Your task to perform on an android device: Open Youtube and go to "Your channel" Image 0: 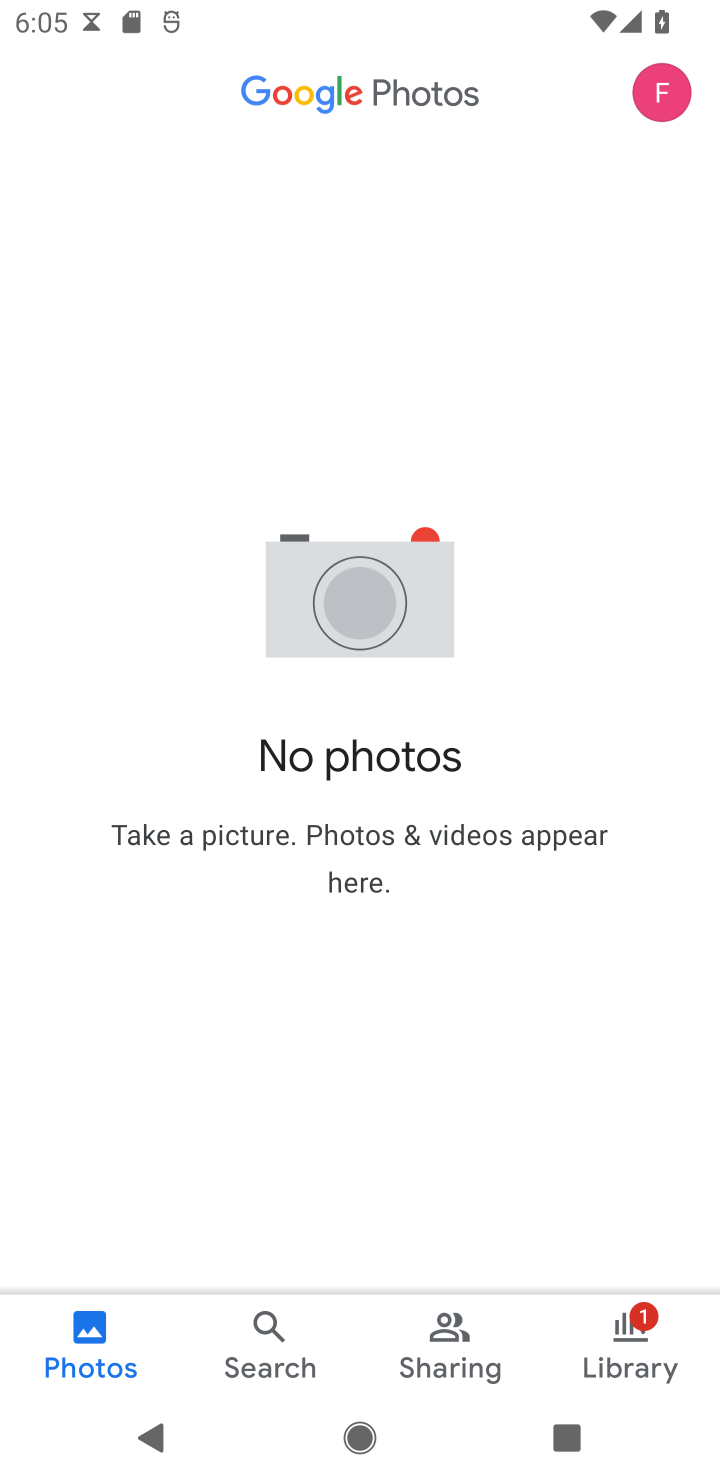
Step 0: press home button
Your task to perform on an android device: Open Youtube and go to "Your channel" Image 1: 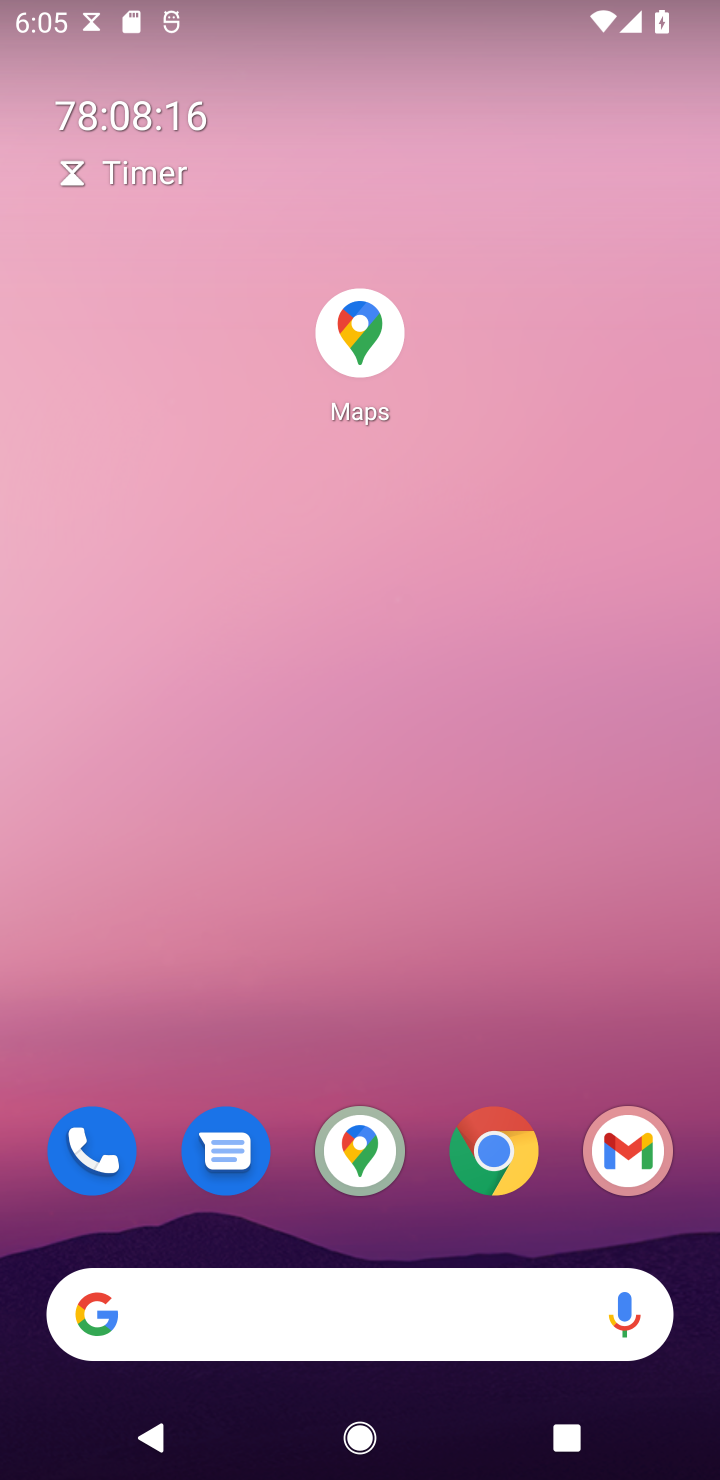
Step 1: drag from (381, 947) to (374, 209)
Your task to perform on an android device: Open Youtube and go to "Your channel" Image 2: 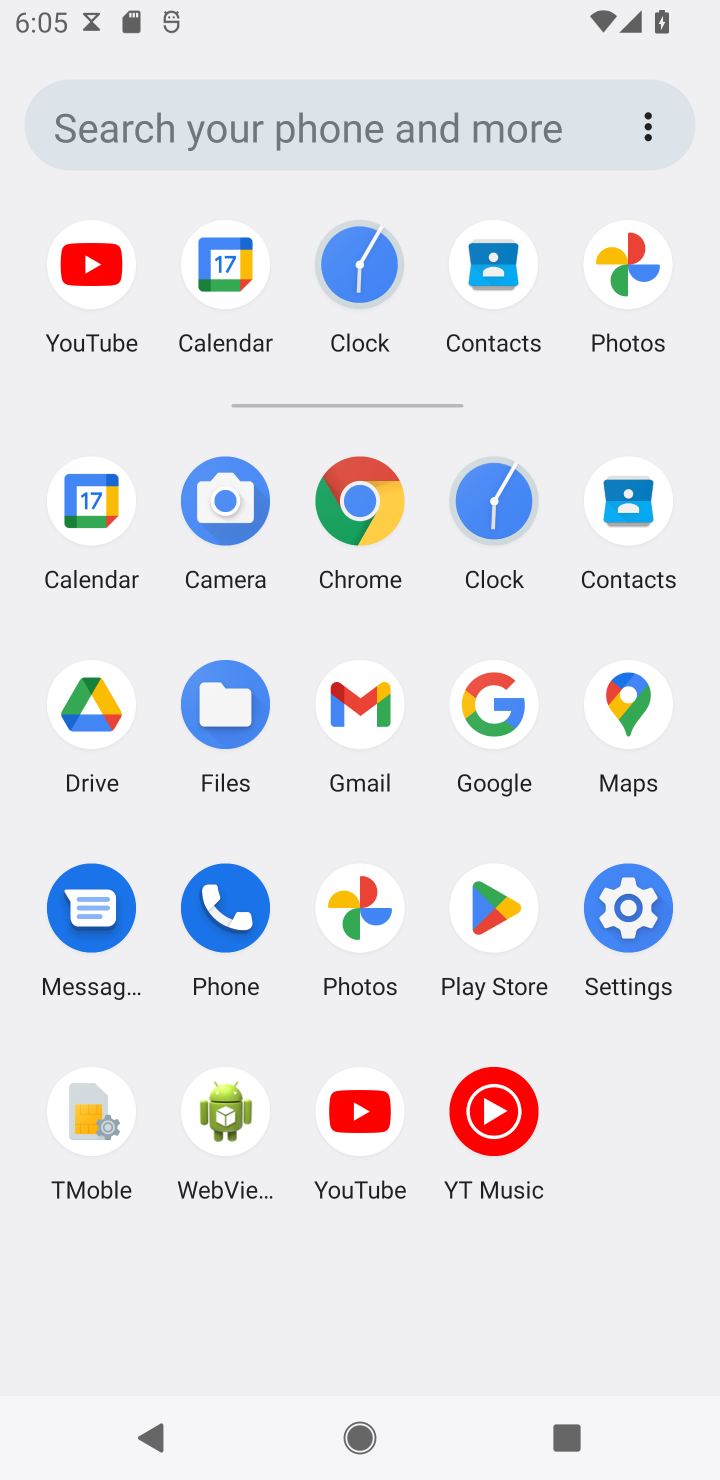
Step 2: click (358, 1106)
Your task to perform on an android device: Open Youtube and go to "Your channel" Image 3: 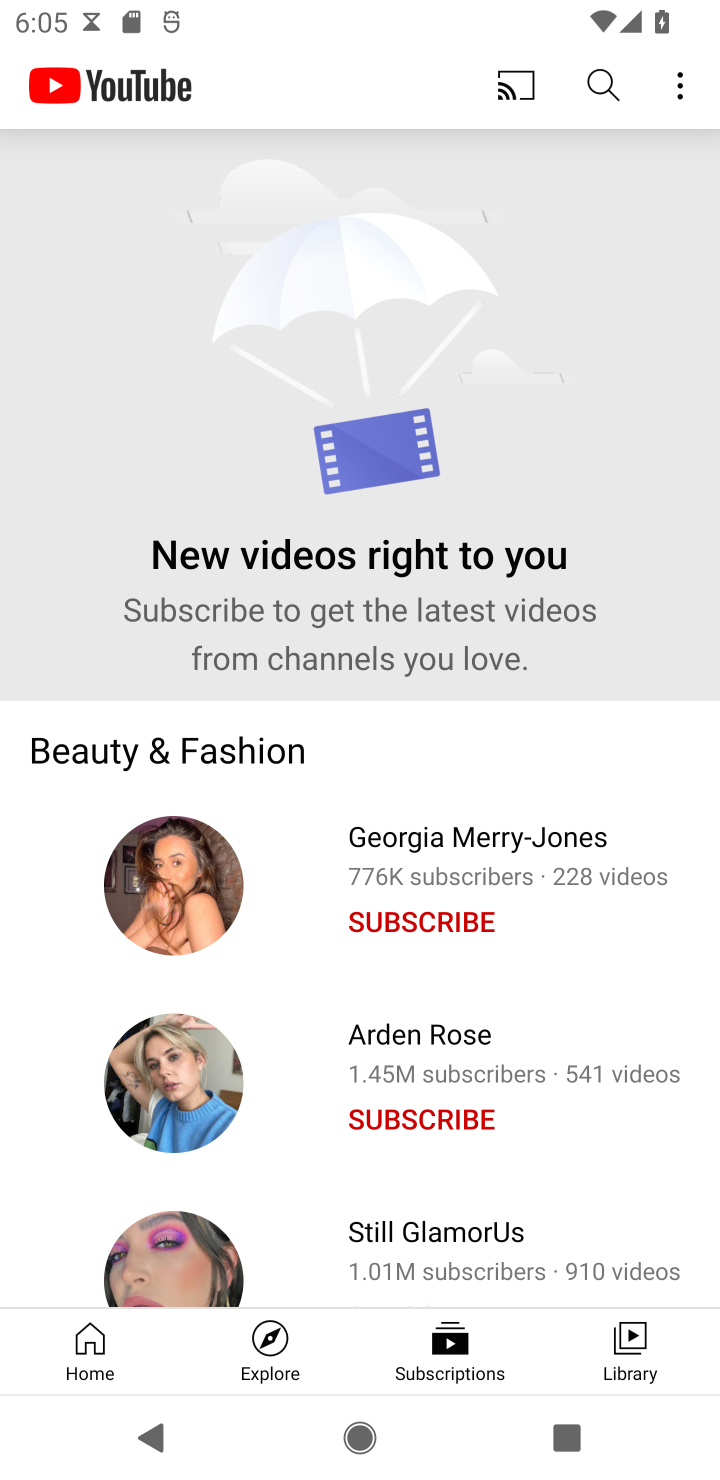
Step 3: click (111, 1335)
Your task to perform on an android device: Open Youtube and go to "Your channel" Image 4: 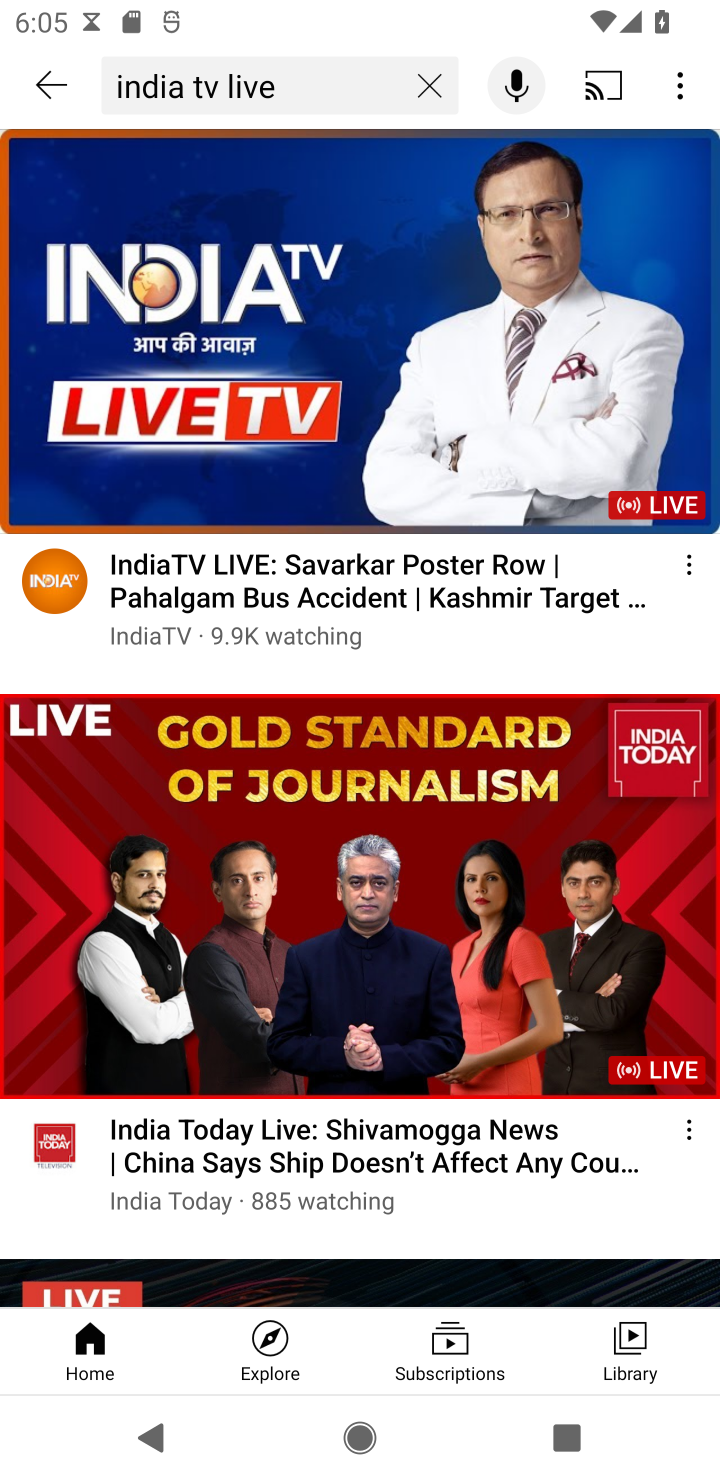
Step 4: click (601, 86)
Your task to perform on an android device: Open Youtube and go to "Your channel" Image 5: 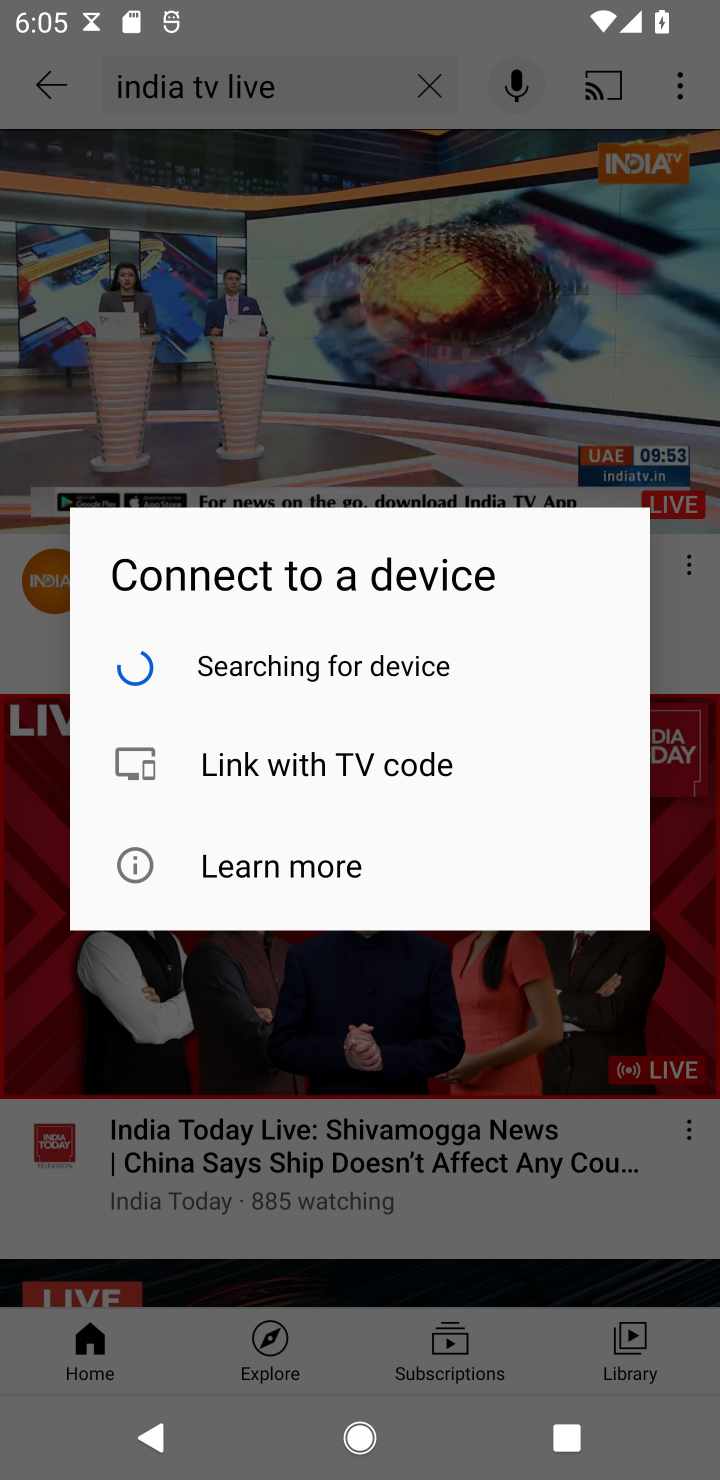
Step 5: type "delhi"
Your task to perform on an android device: Open Youtube and go to "Your channel" Image 6: 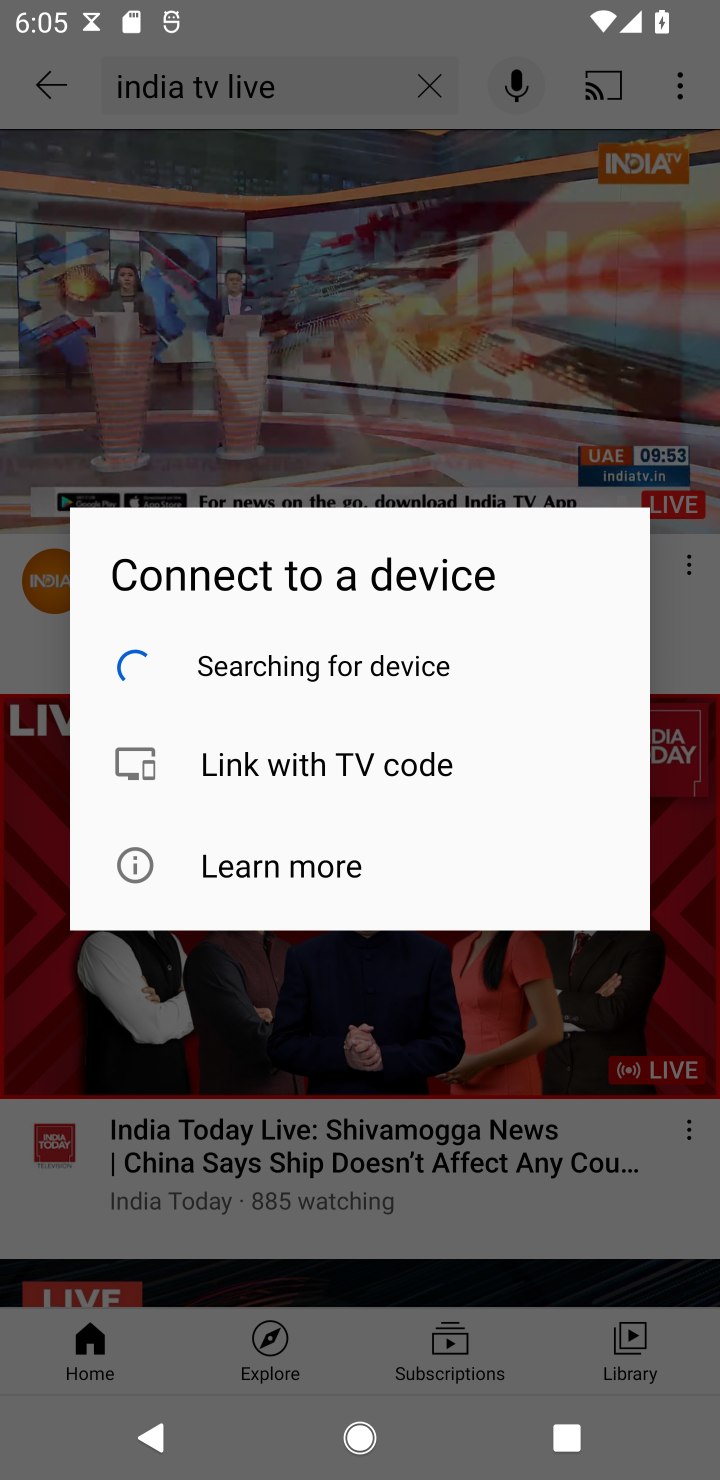
Step 6: click (412, 682)
Your task to perform on an android device: Open Youtube and go to "Your channel" Image 7: 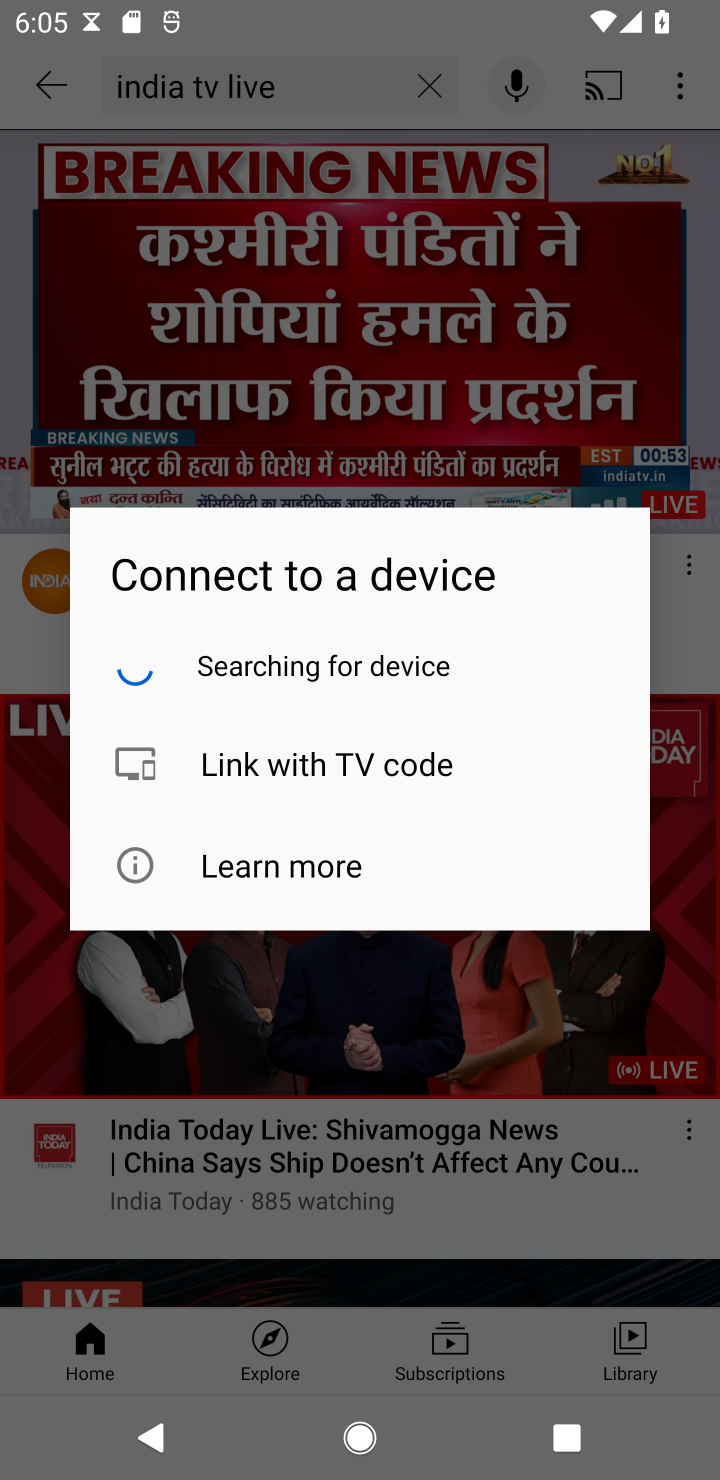
Step 7: click (435, 80)
Your task to perform on an android device: Open Youtube and go to "Your channel" Image 8: 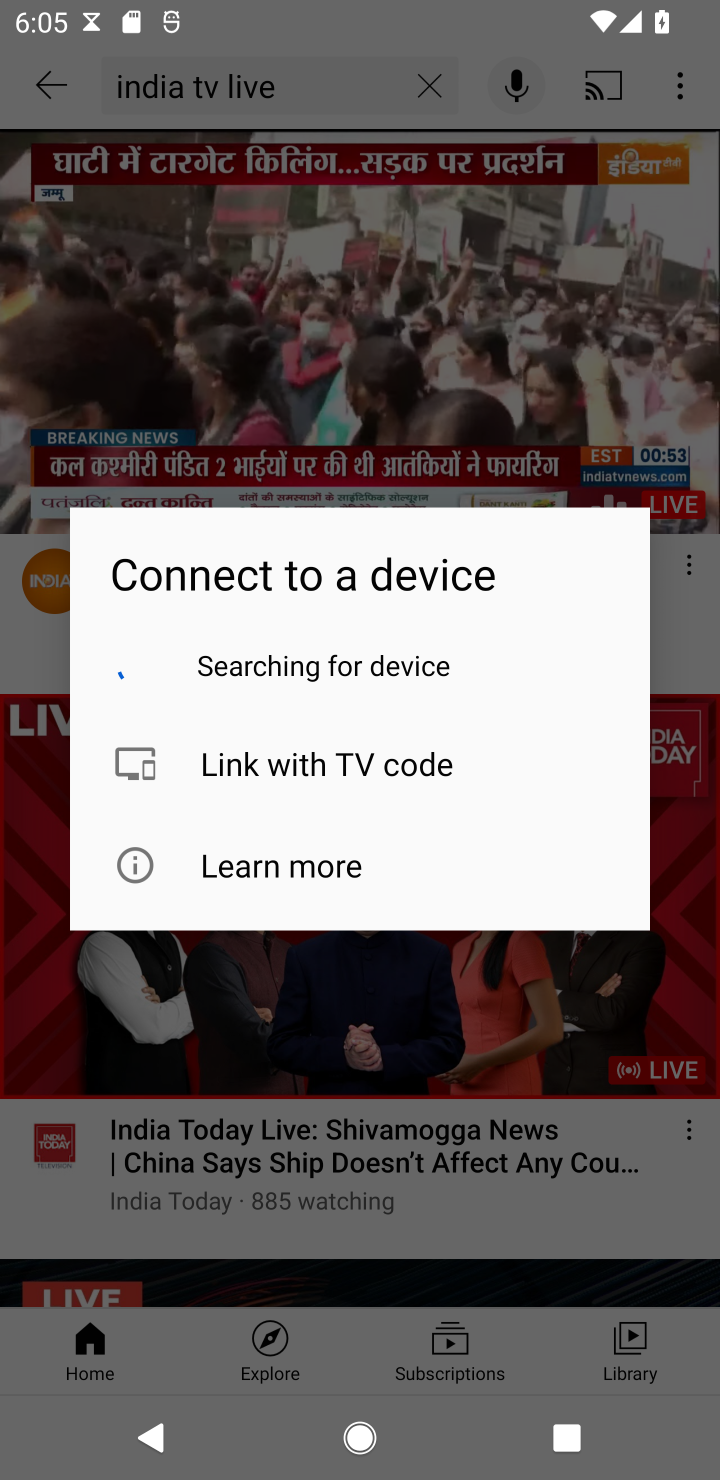
Step 8: click (553, 448)
Your task to perform on an android device: Open Youtube and go to "Your channel" Image 9: 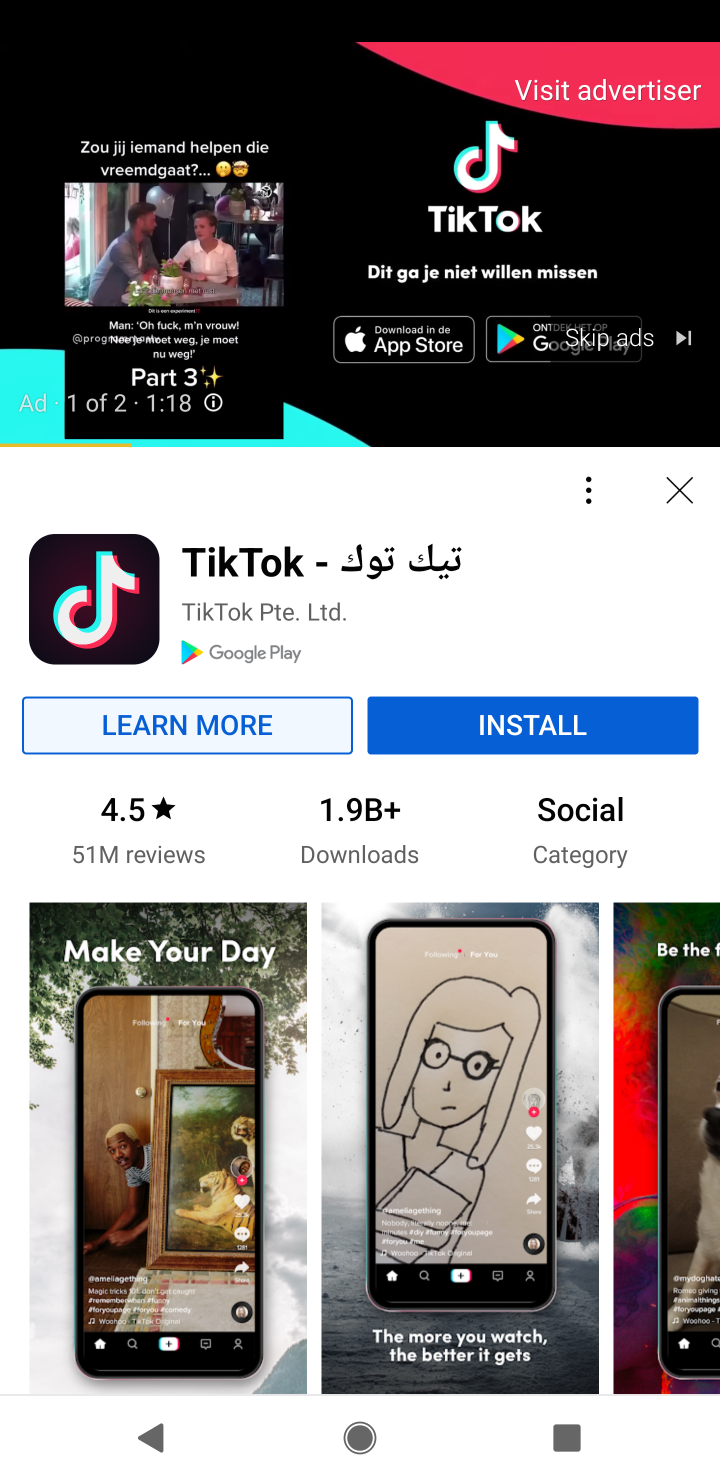
Step 9: click (694, 486)
Your task to perform on an android device: Open Youtube and go to "Your channel" Image 10: 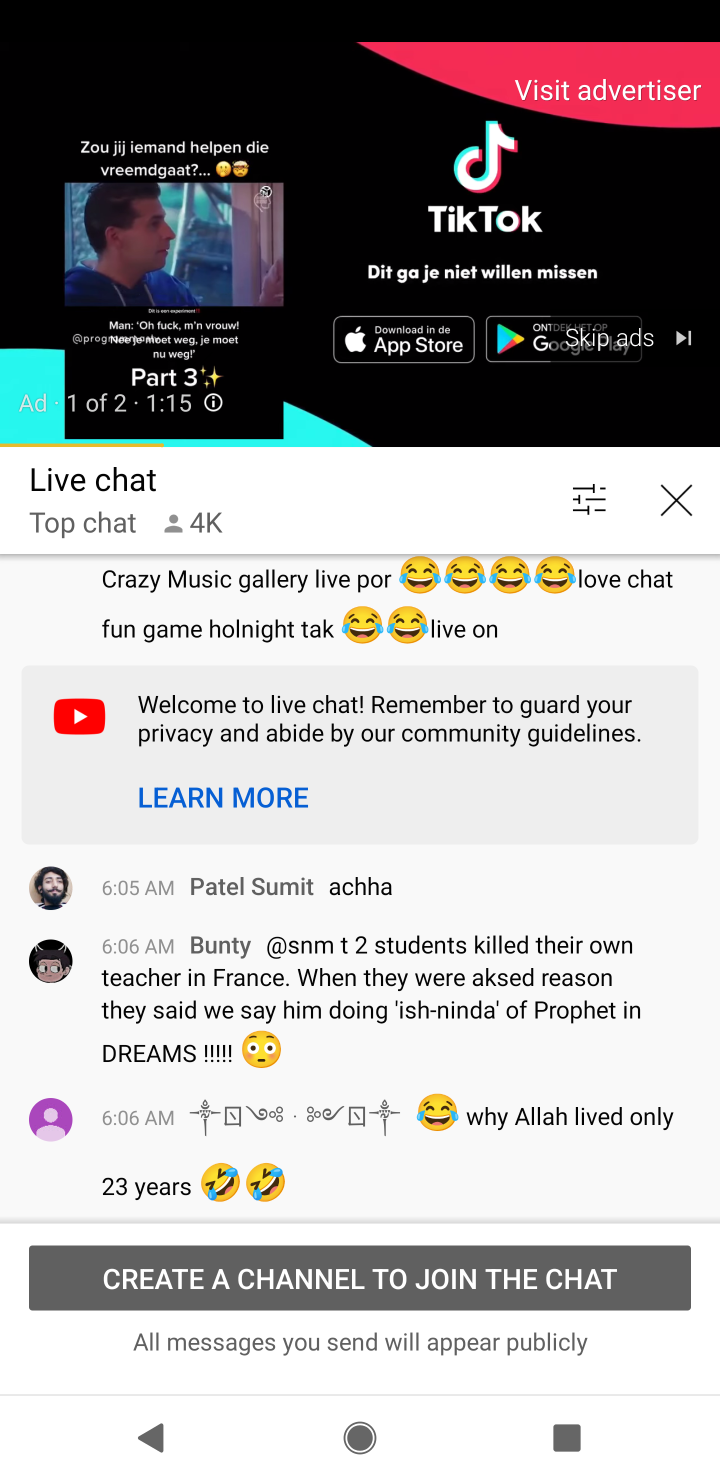
Step 10: click (683, 486)
Your task to perform on an android device: Open Youtube and go to "Your channel" Image 11: 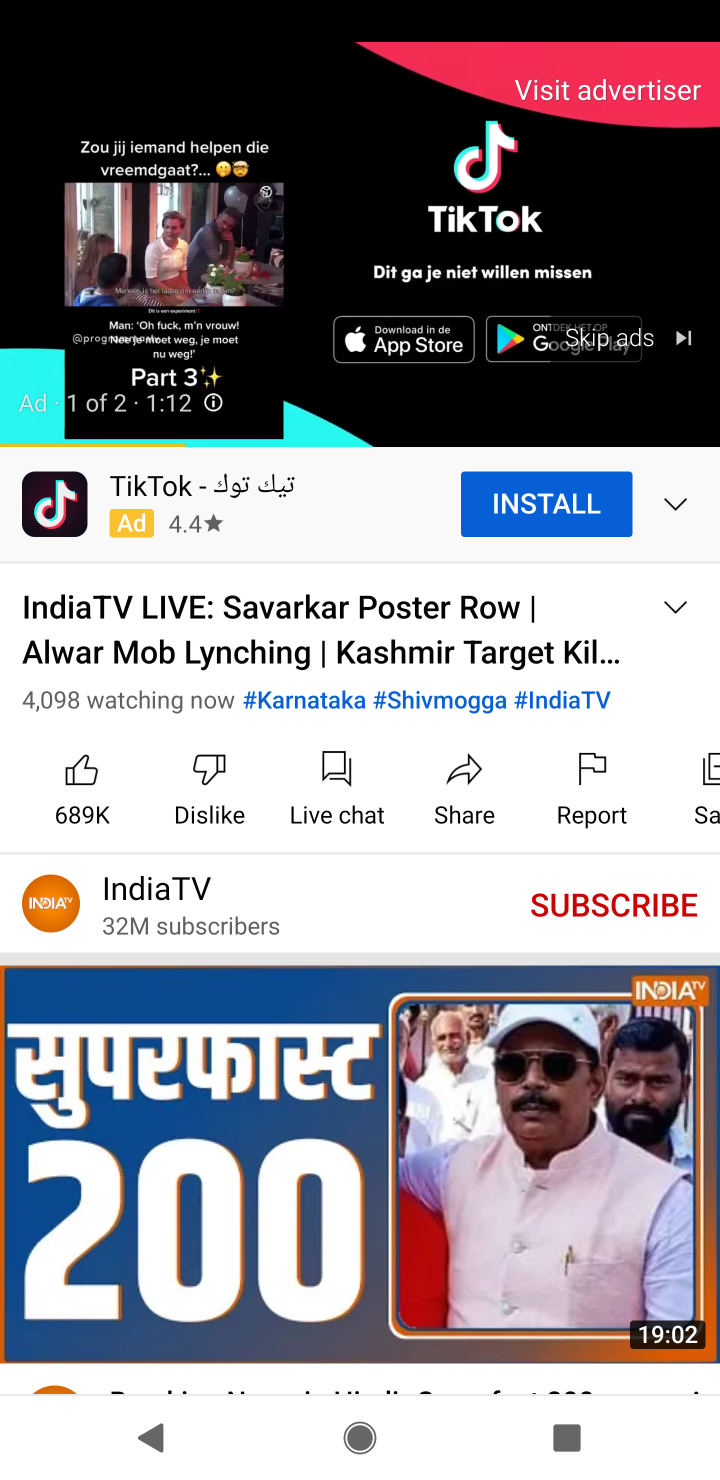
Step 11: press back button
Your task to perform on an android device: Open Youtube and go to "Your channel" Image 12: 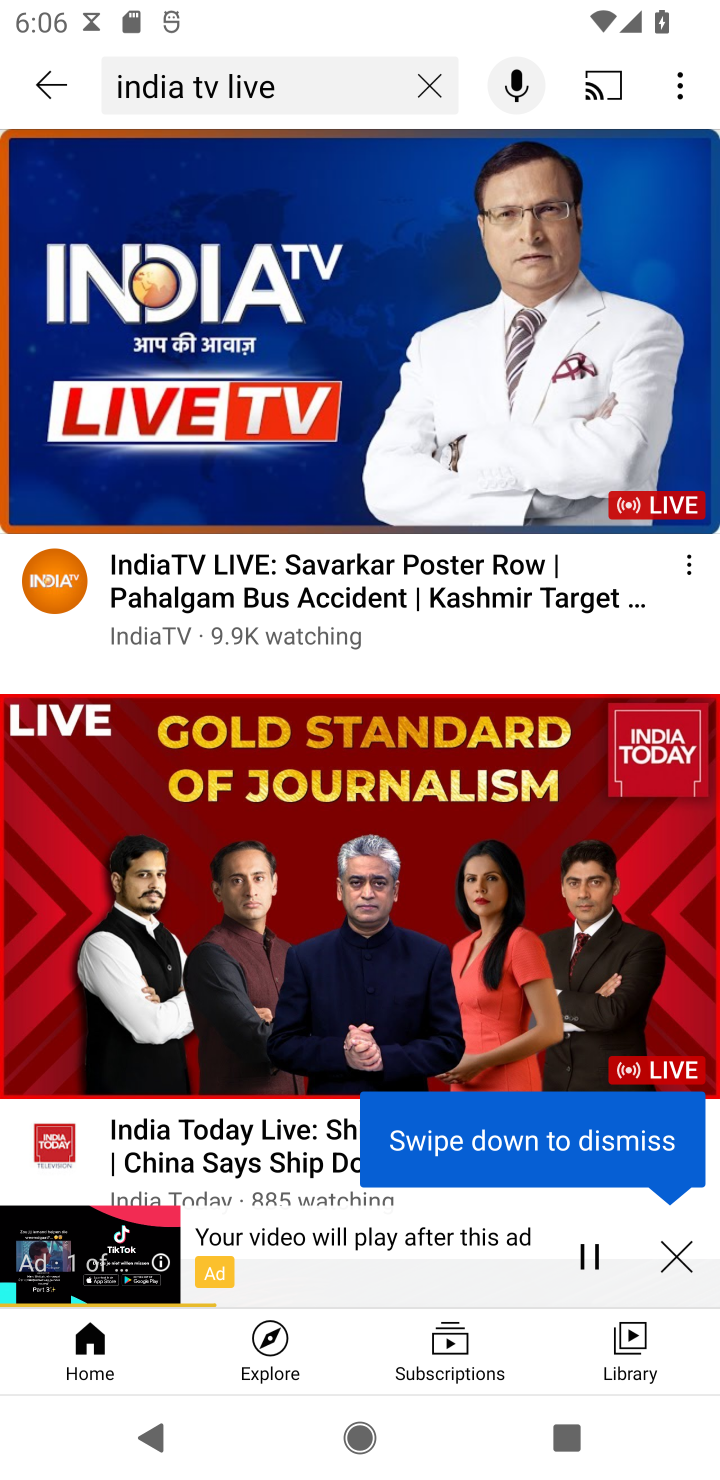
Step 12: click (416, 81)
Your task to perform on an android device: Open Youtube and go to "Your channel" Image 13: 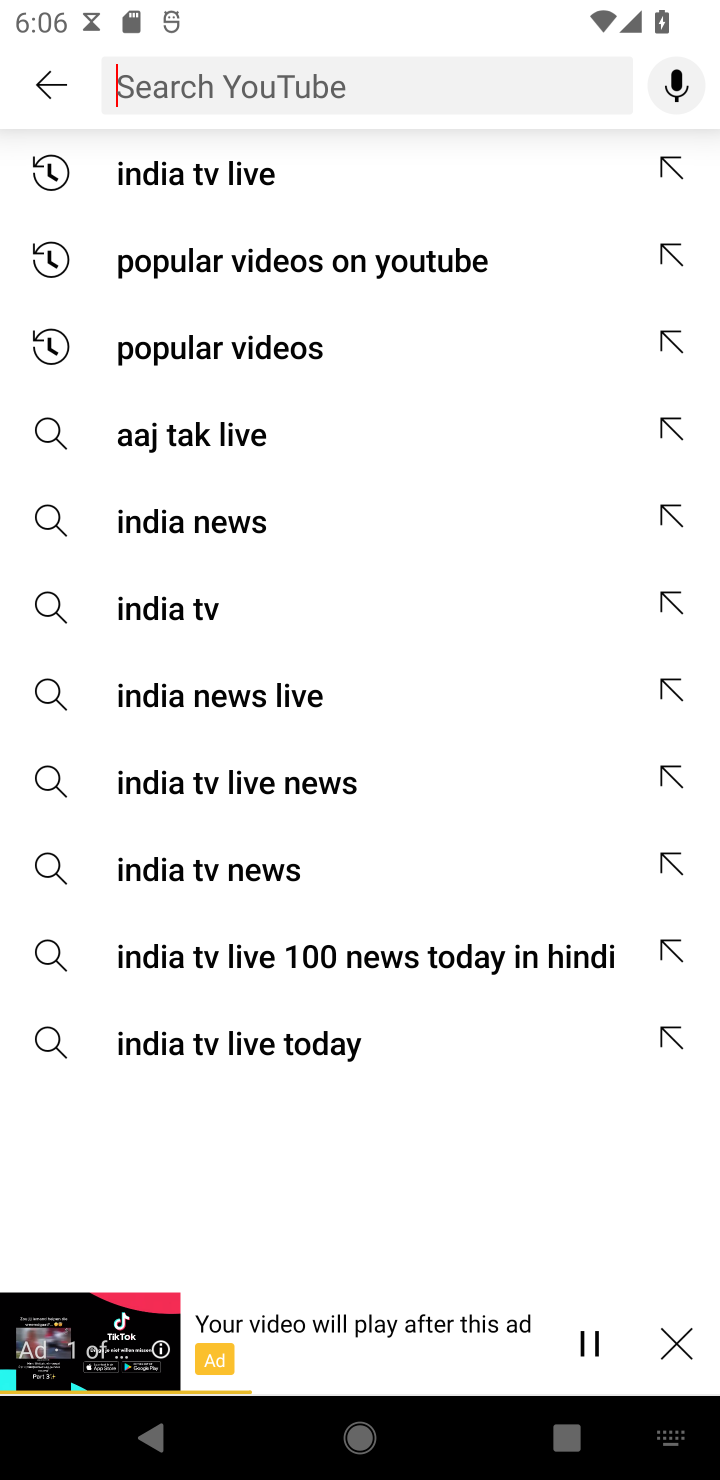
Step 13: click (282, 69)
Your task to perform on an android device: Open Youtube and go to "Your channel" Image 14: 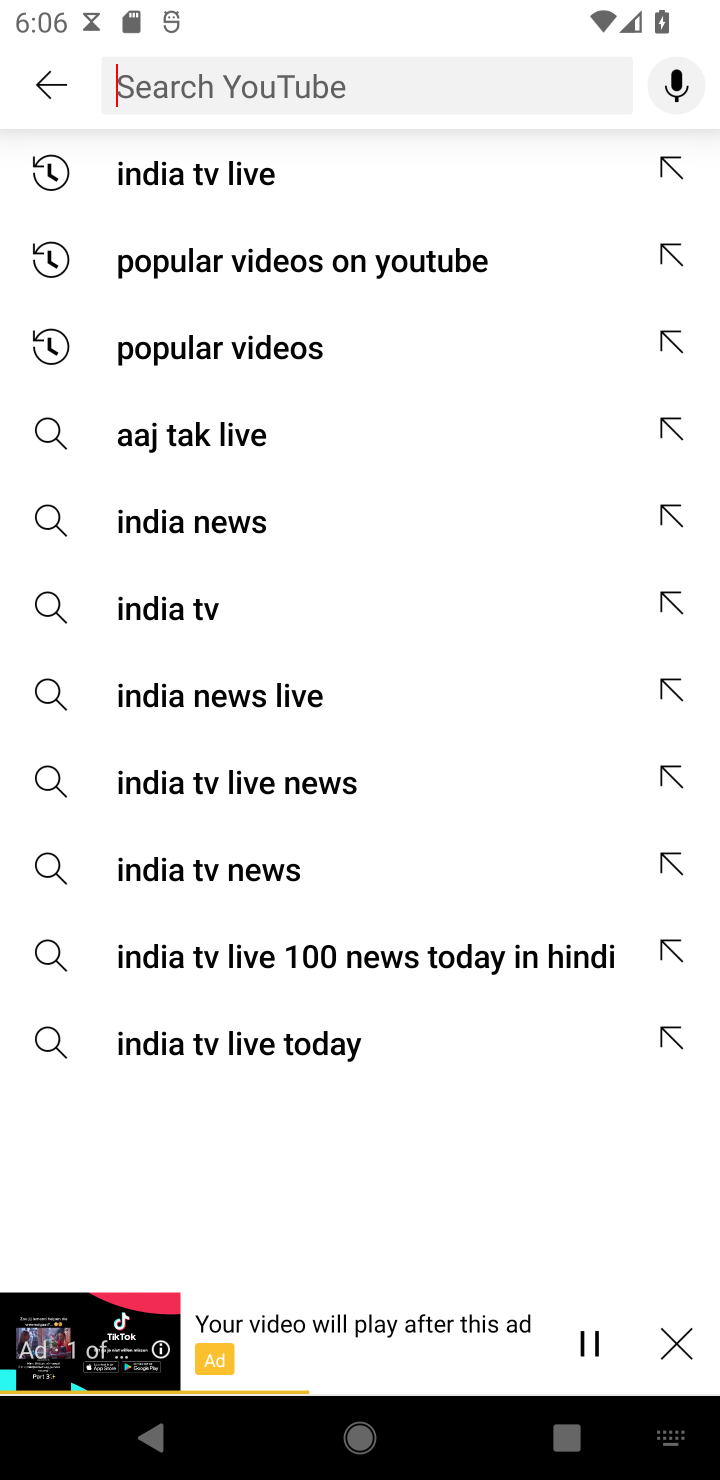
Step 14: type "delhi love "
Your task to perform on an android device: Open Youtube and go to "Your channel" Image 15: 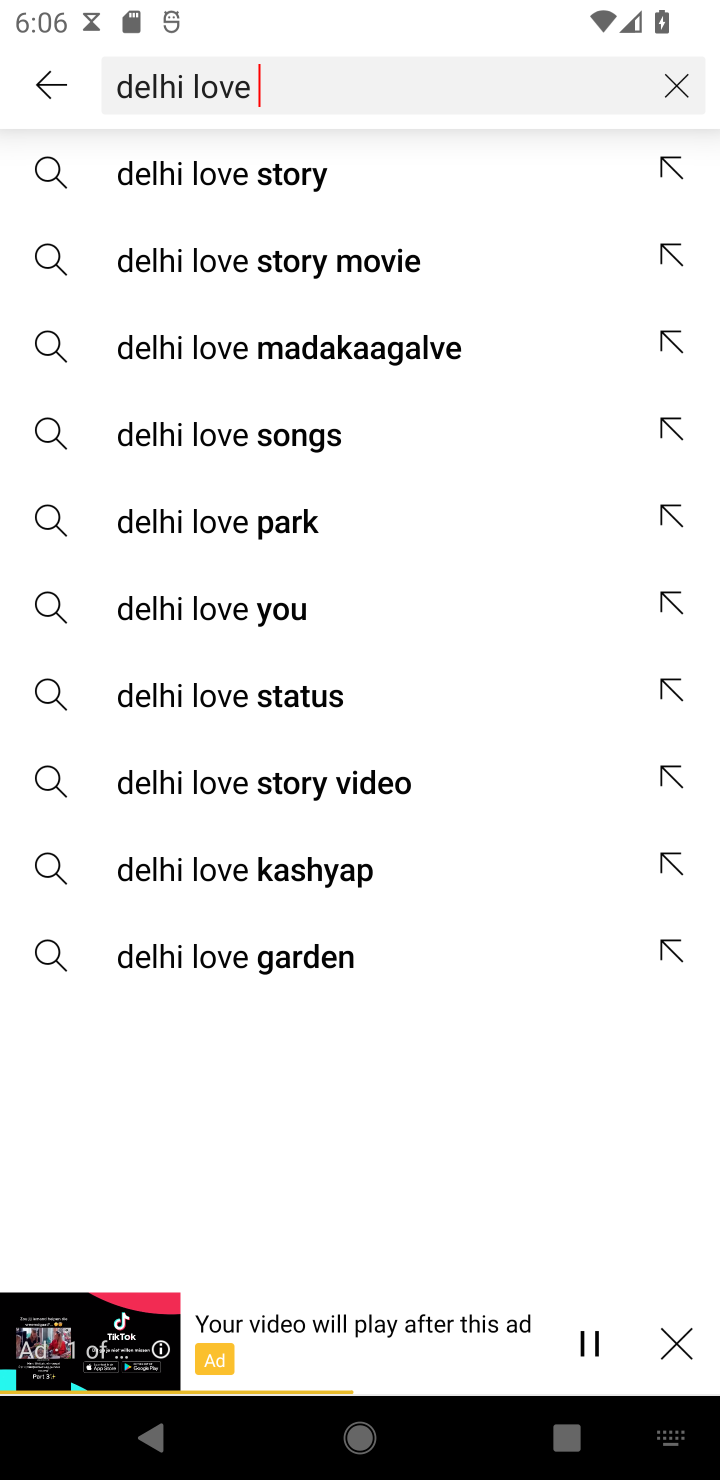
Step 15: click (287, 180)
Your task to perform on an android device: Open Youtube and go to "Your channel" Image 16: 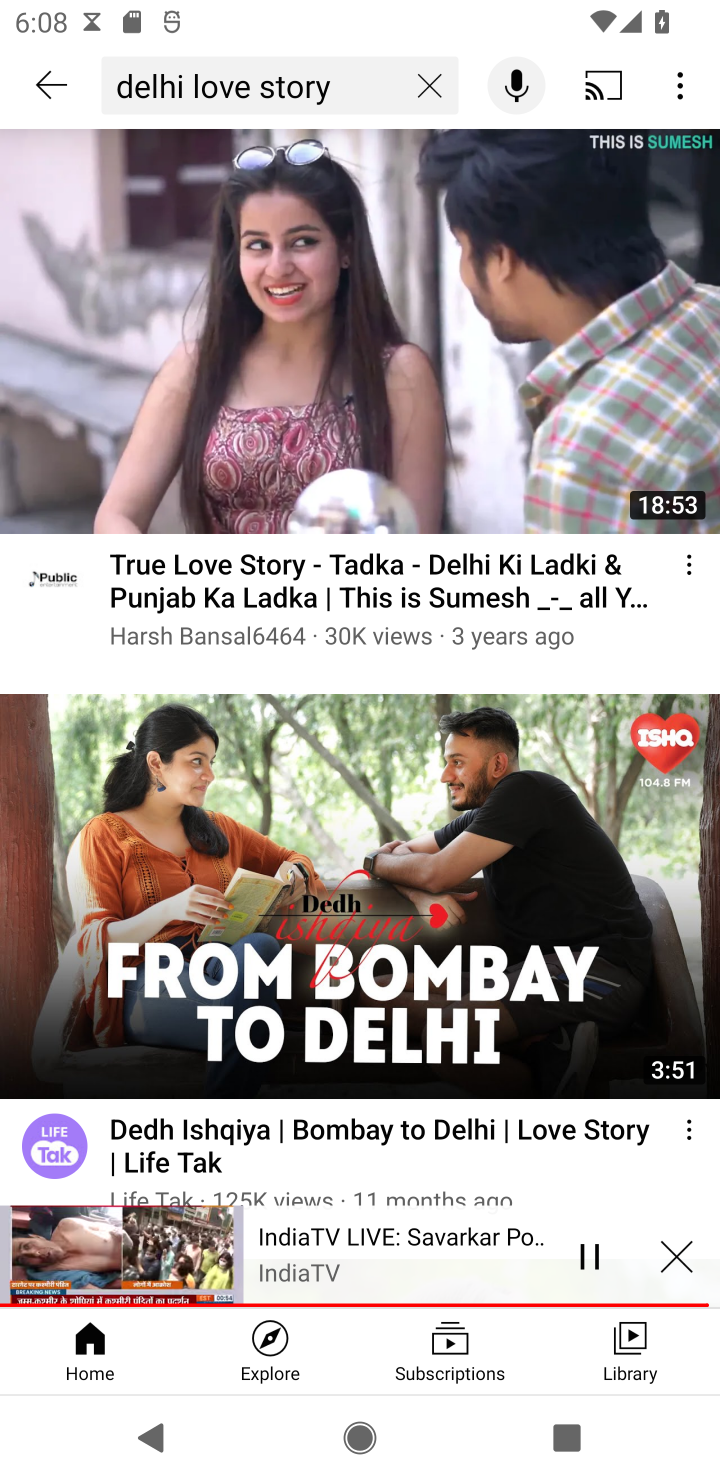
Step 16: task complete